Your task to perform on an android device: stop showing notifications on the lock screen Image 0: 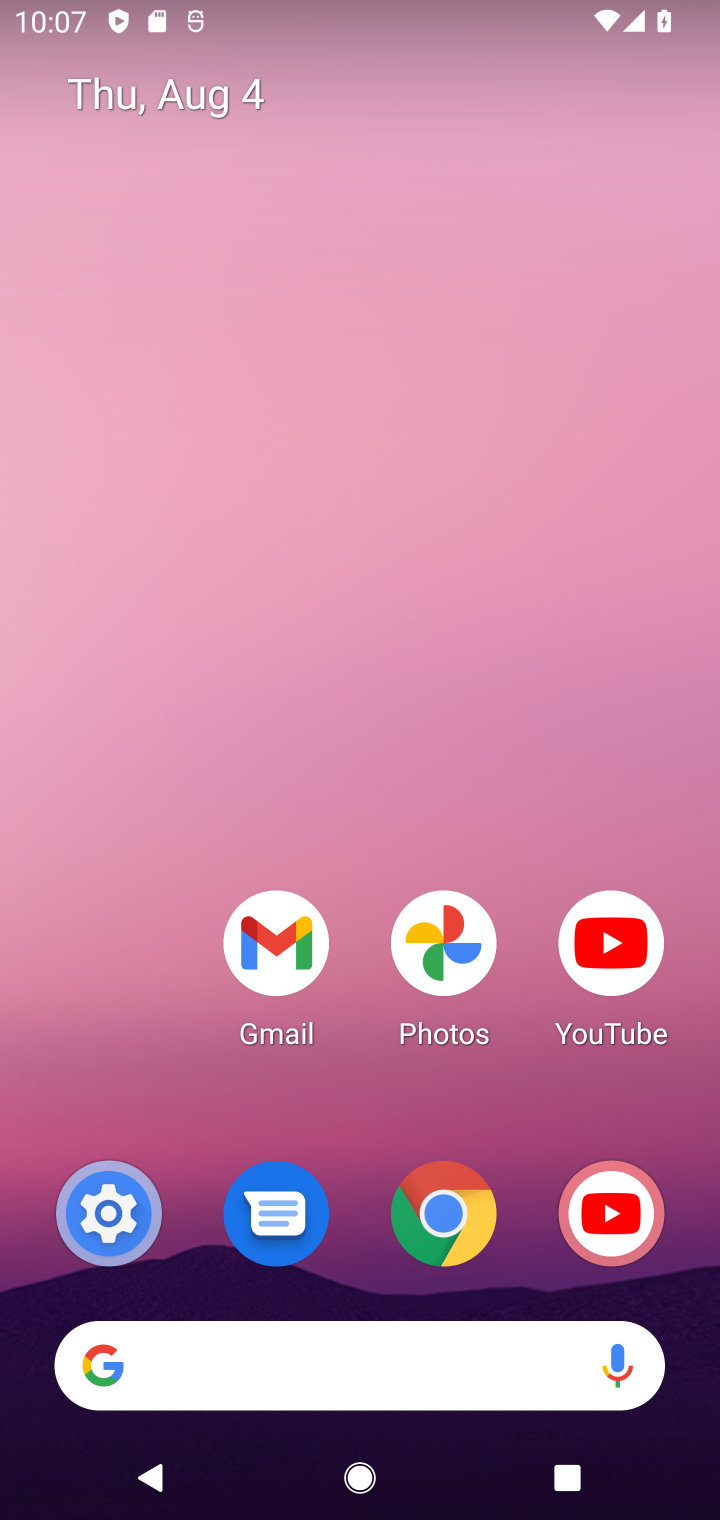
Step 0: press home button
Your task to perform on an android device: stop showing notifications on the lock screen Image 1: 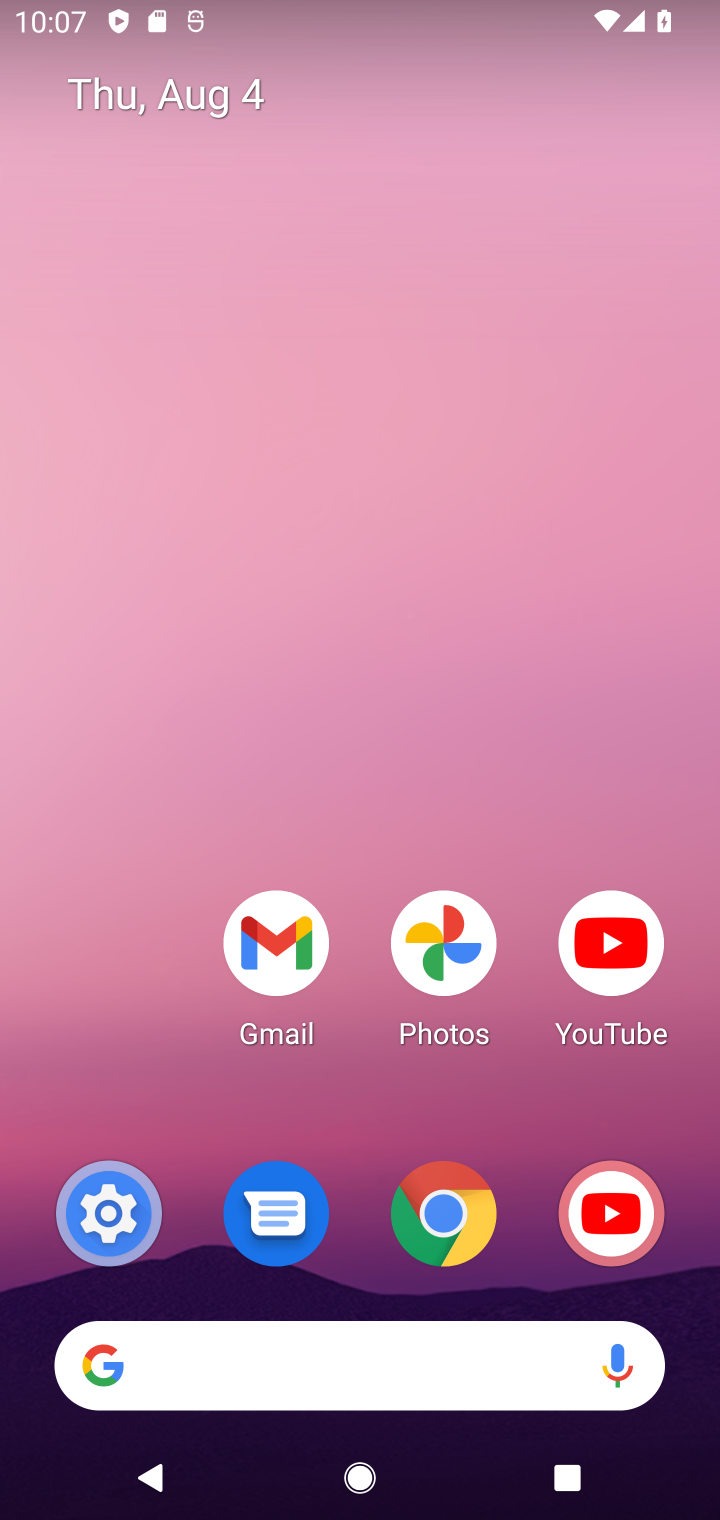
Step 1: drag from (413, 1112) to (412, 358)
Your task to perform on an android device: stop showing notifications on the lock screen Image 2: 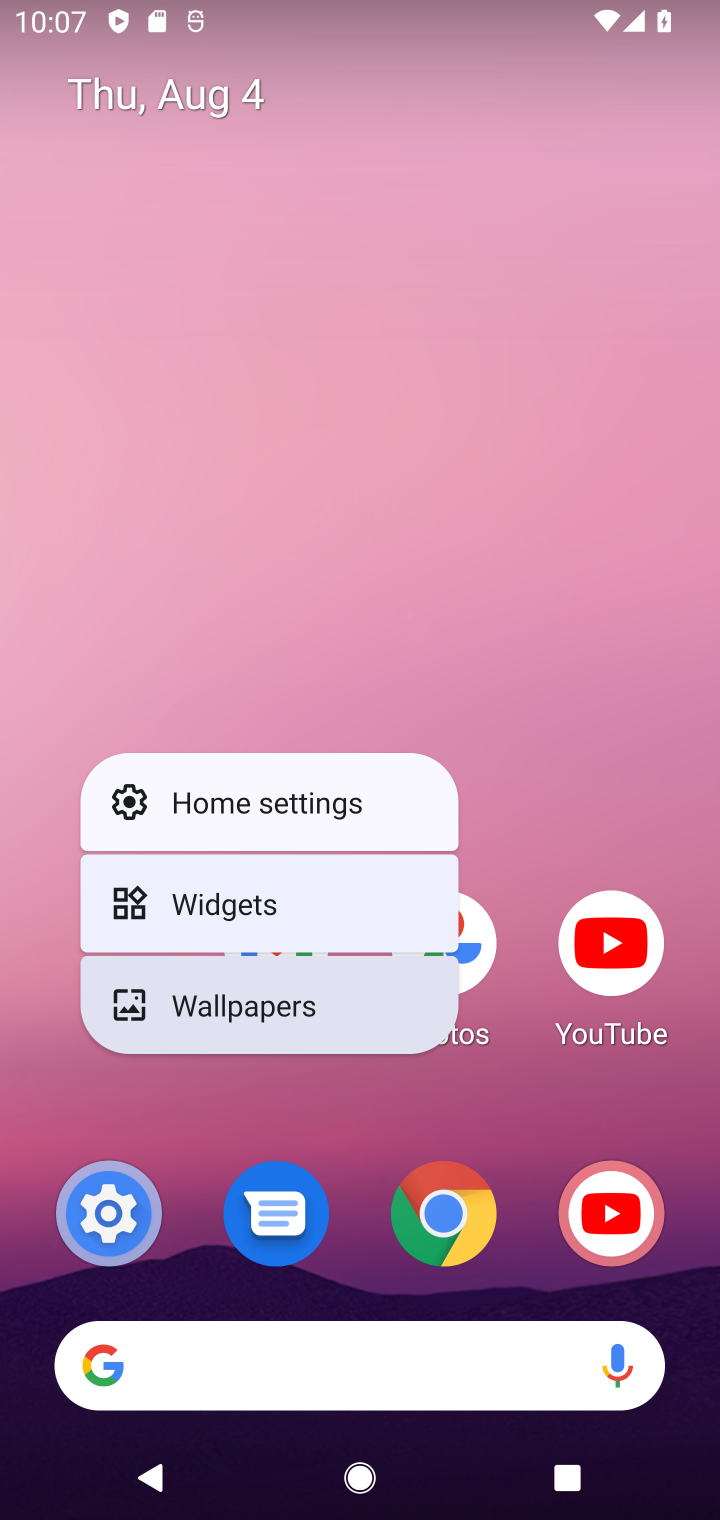
Step 2: click (558, 657)
Your task to perform on an android device: stop showing notifications on the lock screen Image 3: 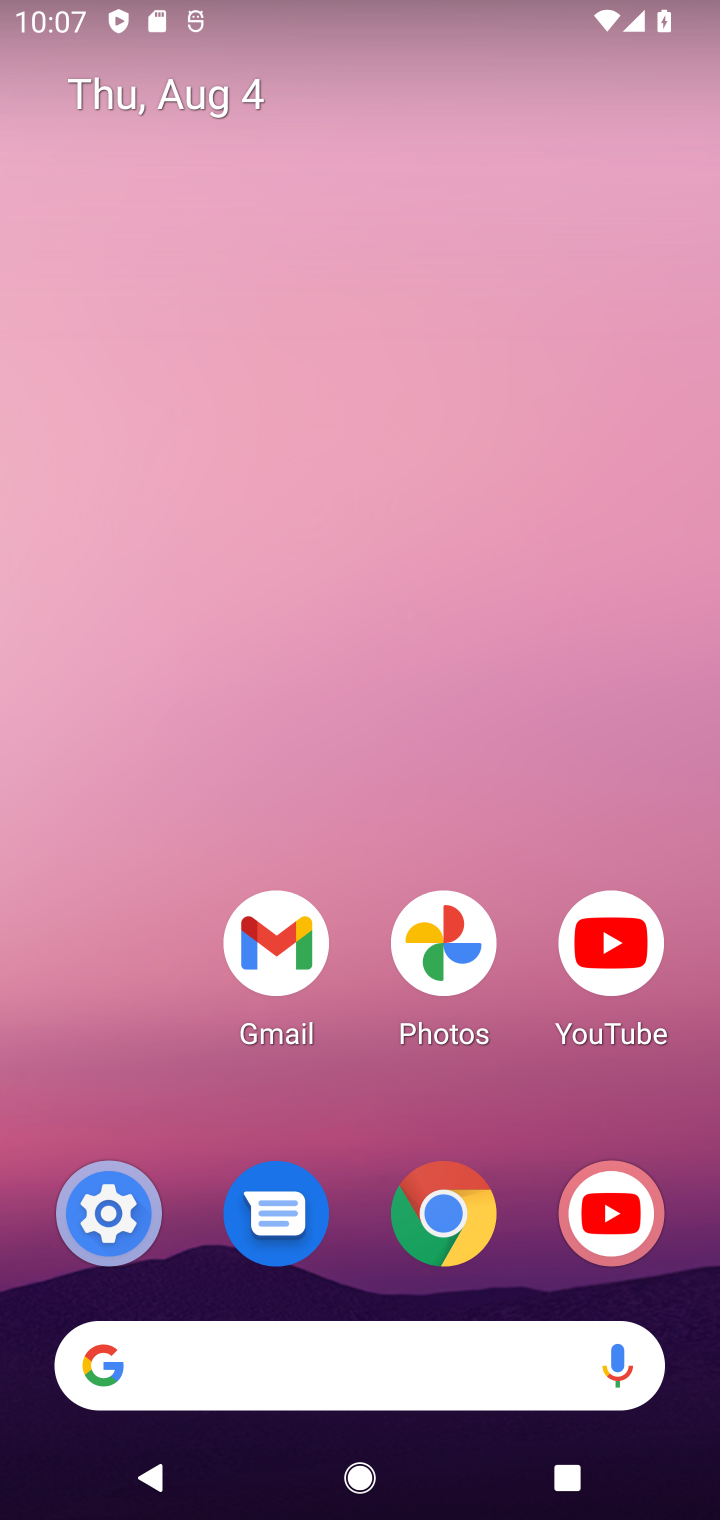
Step 3: drag from (519, 863) to (511, 0)
Your task to perform on an android device: stop showing notifications on the lock screen Image 4: 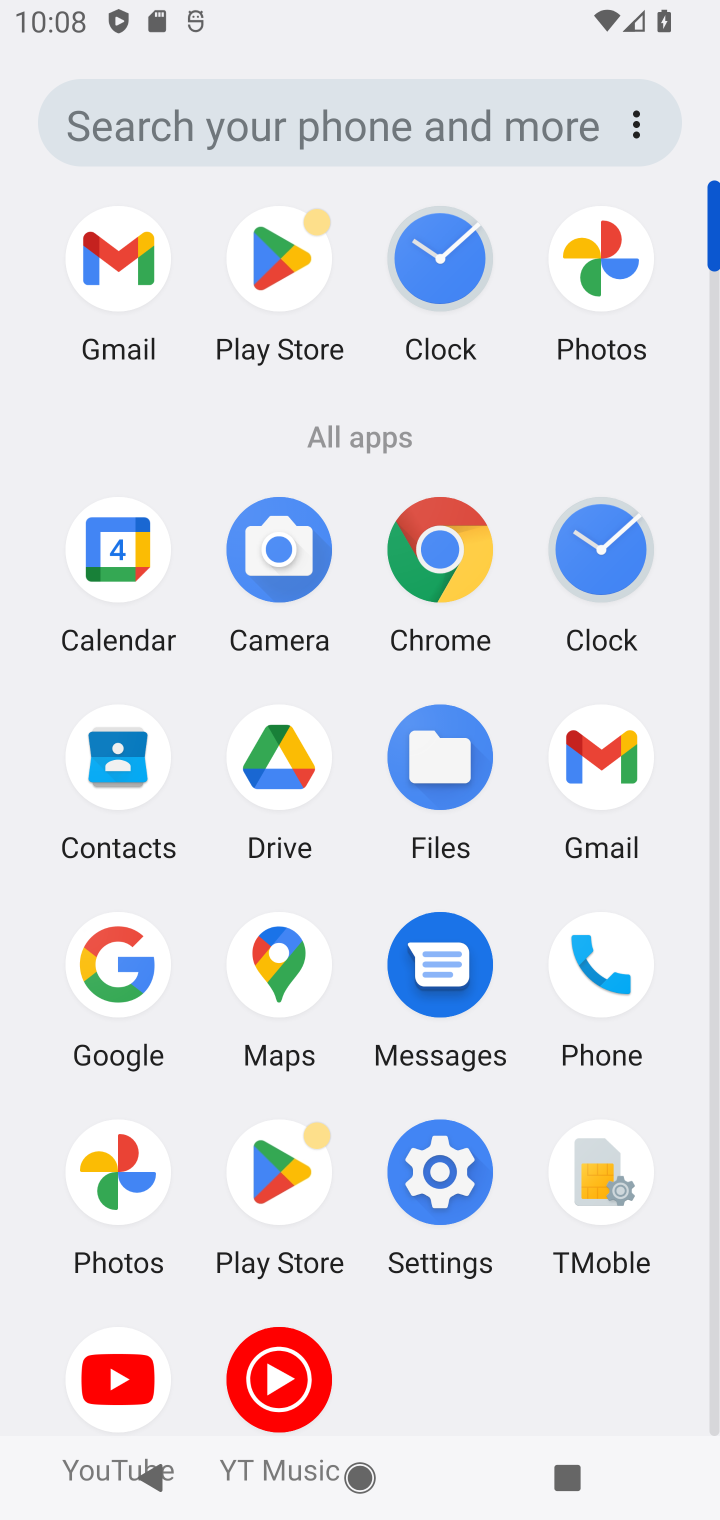
Step 4: click (453, 1196)
Your task to perform on an android device: stop showing notifications on the lock screen Image 5: 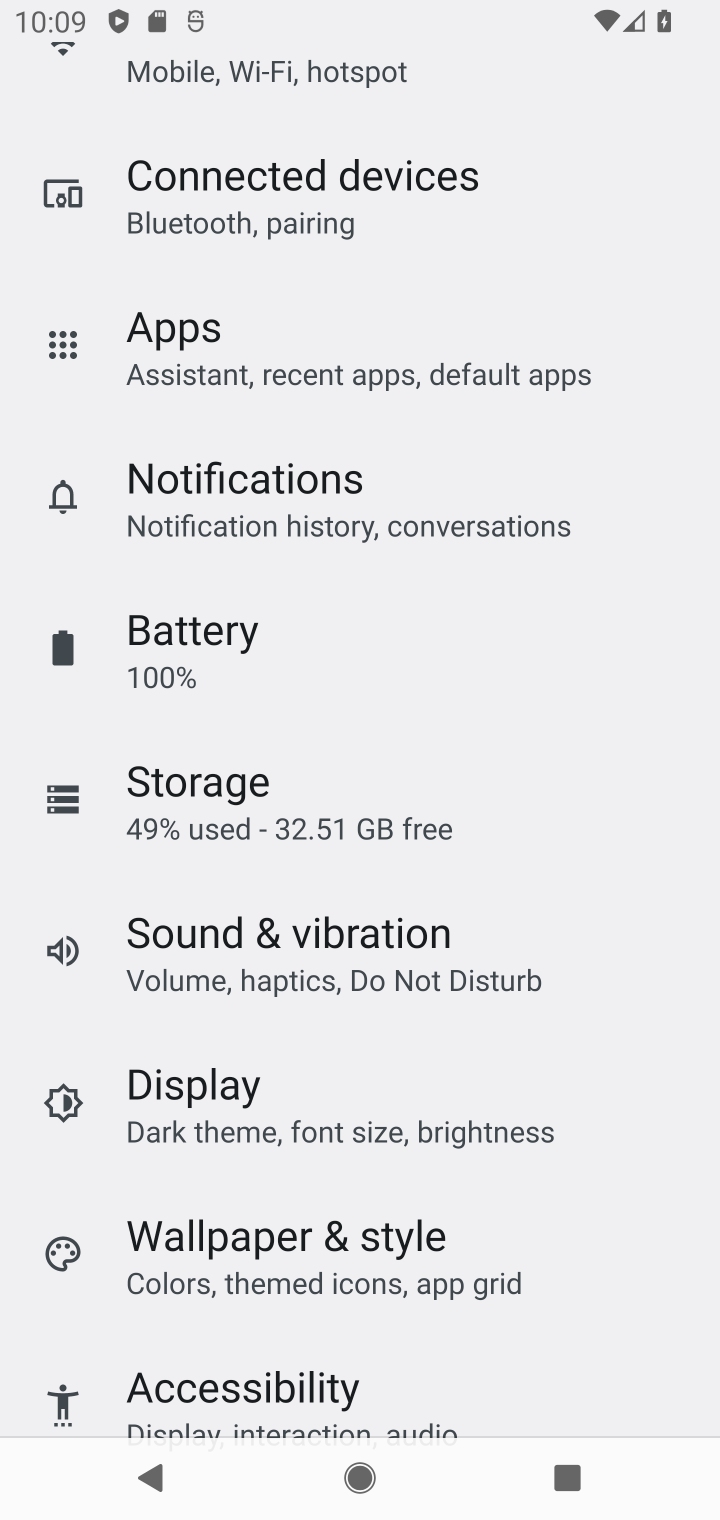
Step 5: click (302, 497)
Your task to perform on an android device: stop showing notifications on the lock screen Image 6: 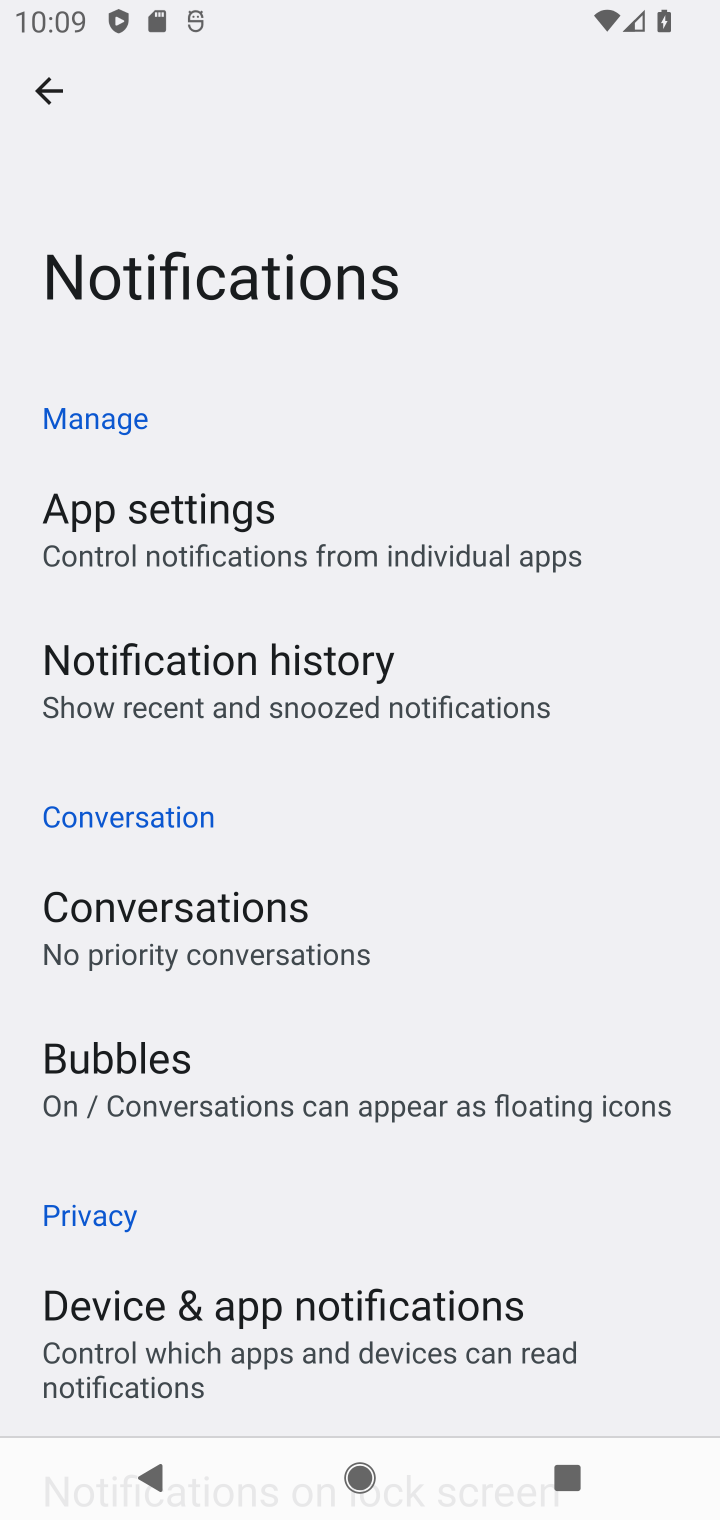
Step 6: drag from (411, 1276) to (373, 722)
Your task to perform on an android device: stop showing notifications on the lock screen Image 7: 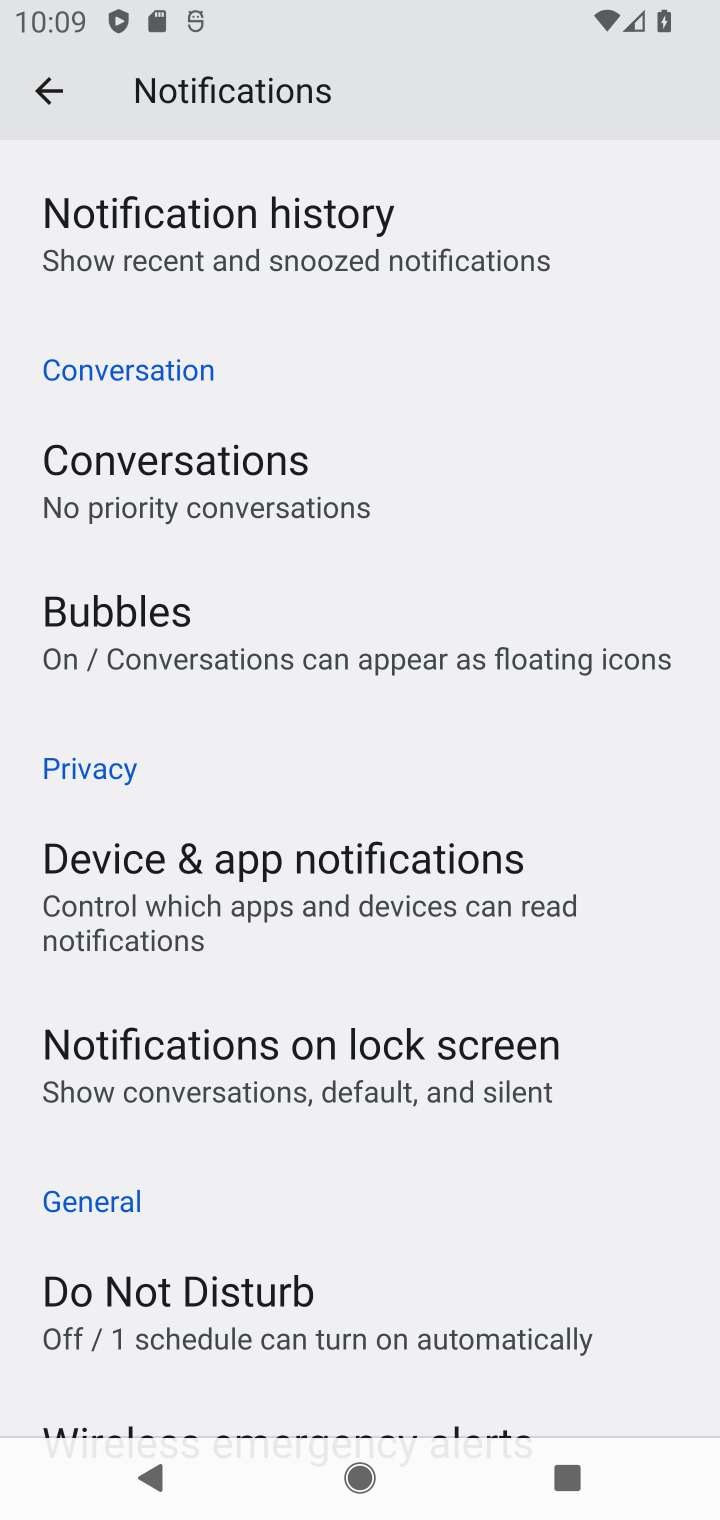
Step 7: click (420, 1035)
Your task to perform on an android device: stop showing notifications on the lock screen Image 8: 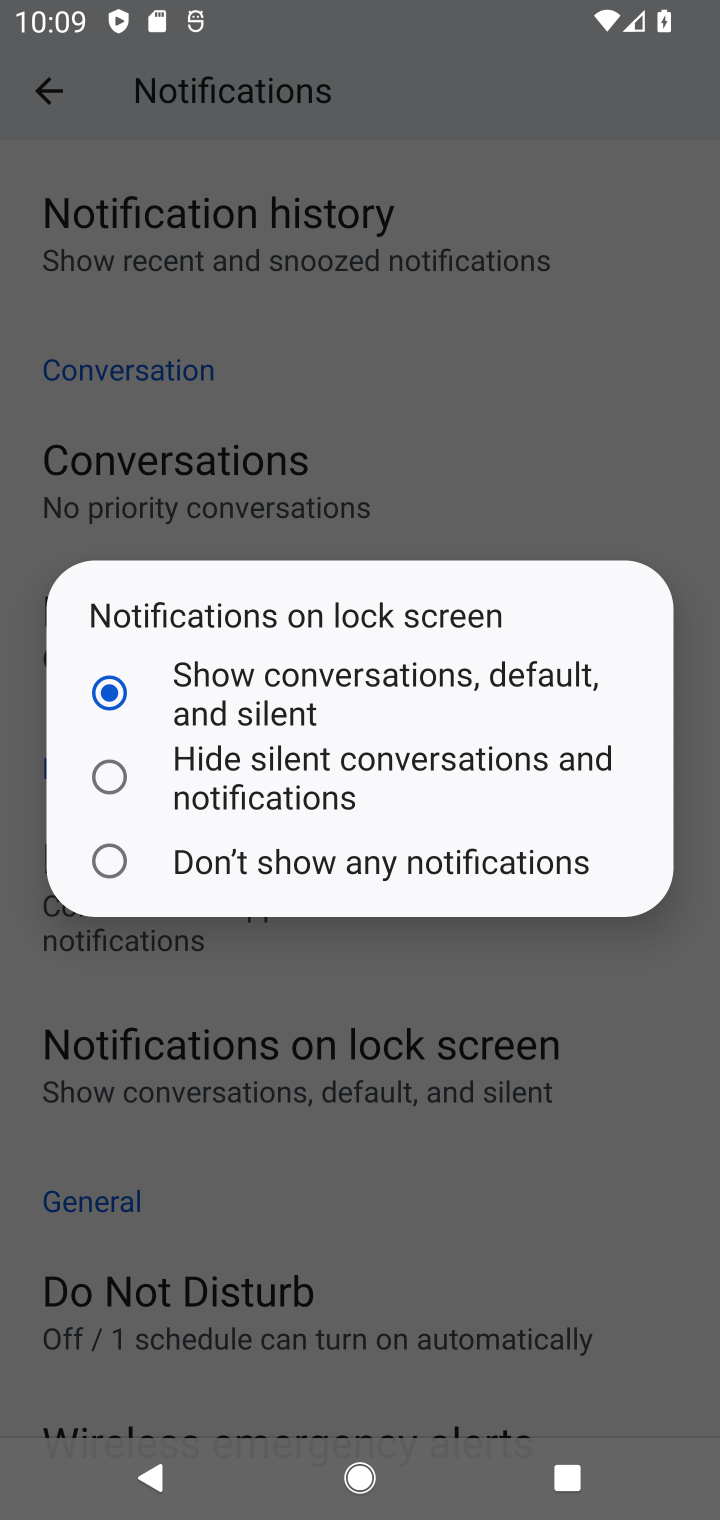
Step 8: click (321, 857)
Your task to perform on an android device: stop showing notifications on the lock screen Image 9: 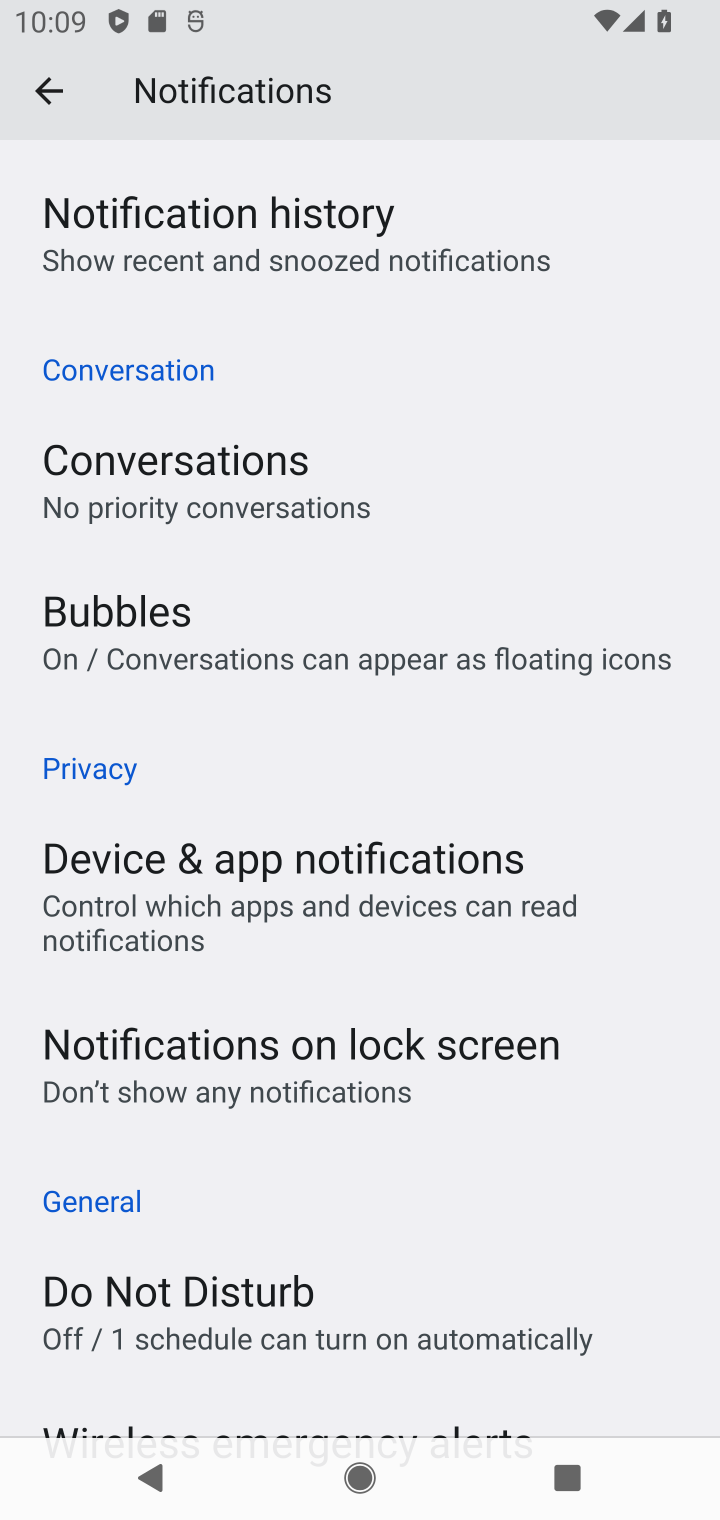
Step 9: task complete